Your task to perform on an android device: Is it going to rain today? Image 0: 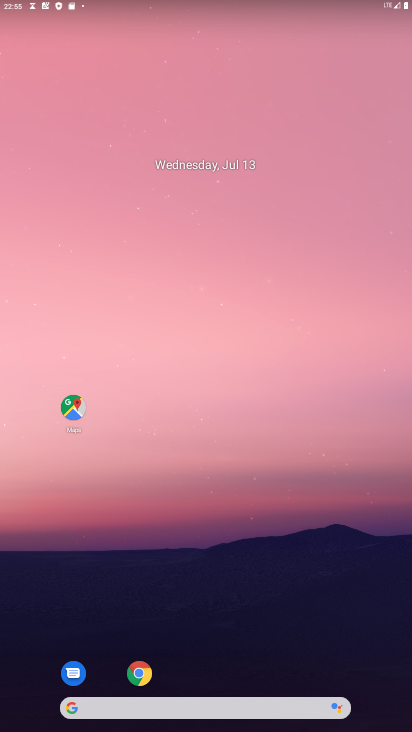
Step 0: drag from (183, 672) to (323, 258)
Your task to perform on an android device: Is it going to rain today? Image 1: 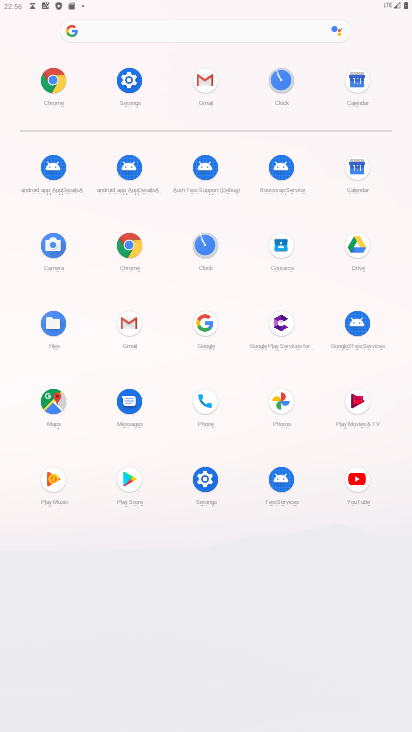
Step 1: click (150, 30)
Your task to perform on an android device: Is it going to rain today? Image 2: 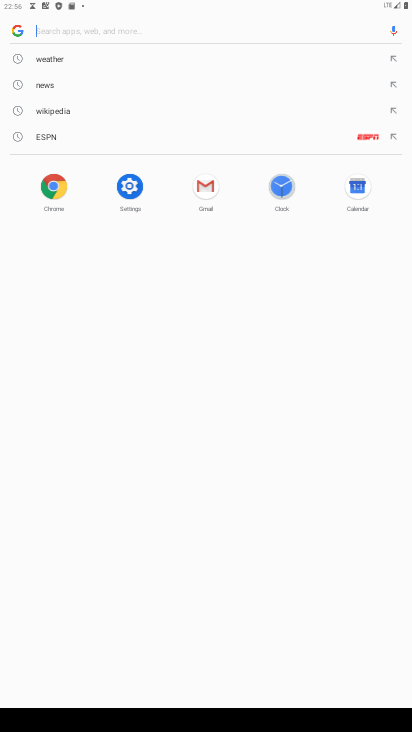
Step 2: click (94, 27)
Your task to perform on an android device: Is it going to rain today? Image 3: 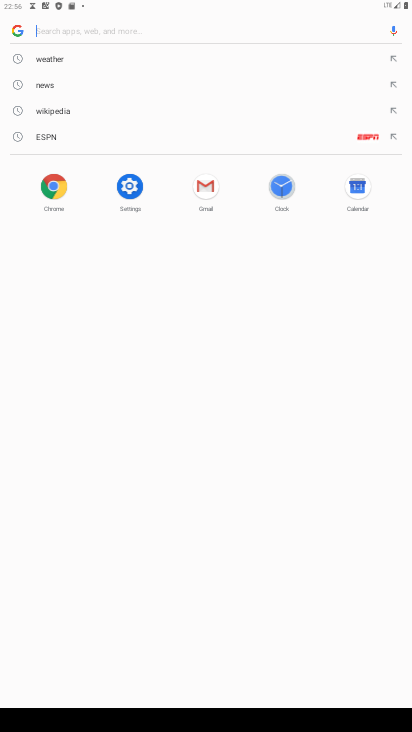
Step 3: type "Is it going to rain today?"
Your task to perform on an android device: Is it going to rain today? Image 4: 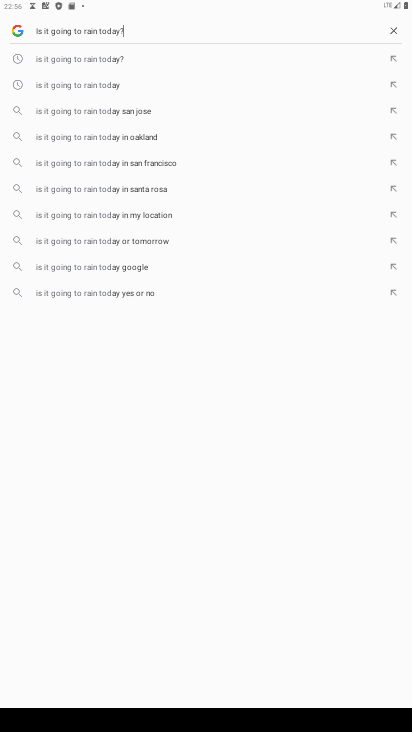
Step 4: type ""
Your task to perform on an android device: Is it going to rain today? Image 5: 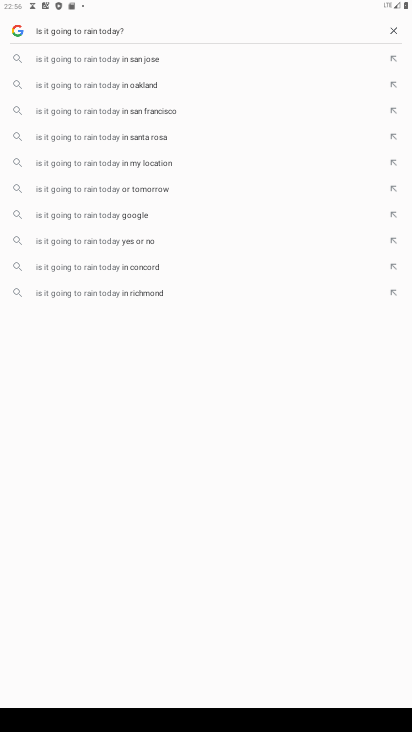
Step 5: click (109, 215)
Your task to perform on an android device: Is it going to rain today? Image 6: 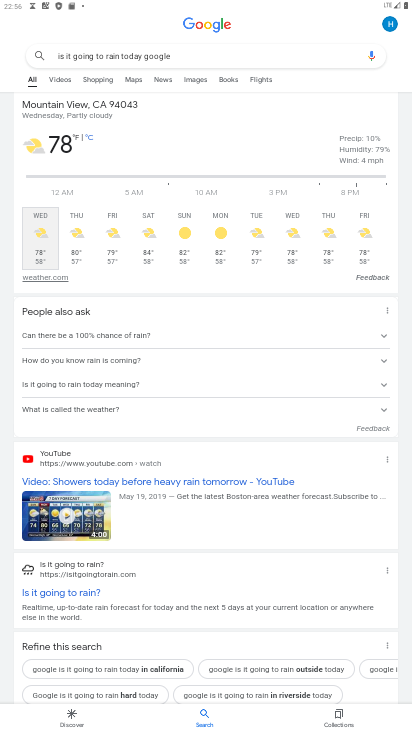
Step 6: task complete